Your task to perform on an android device: turn off picture-in-picture Image 0: 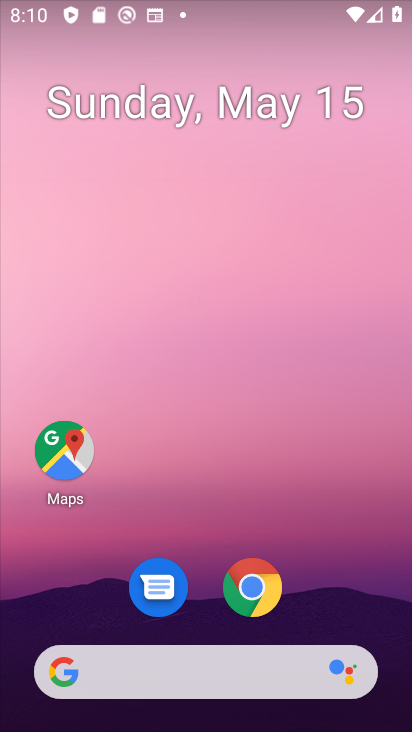
Step 0: drag from (214, 616) to (252, 214)
Your task to perform on an android device: turn off picture-in-picture Image 1: 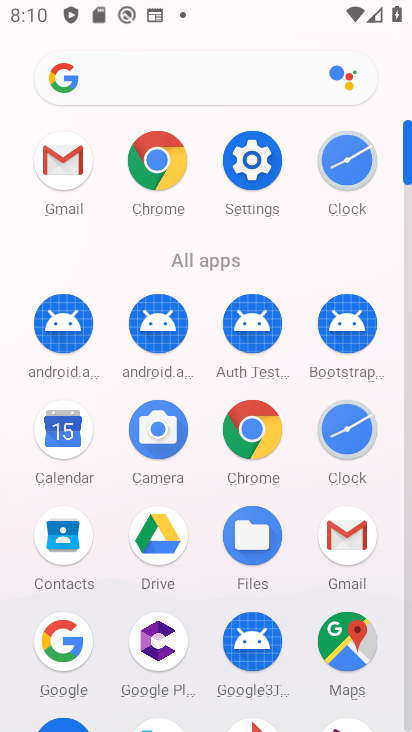
Step 1: click (252, 158)
Your task to perform on an android device: turn off picture-in-picture Image 2: 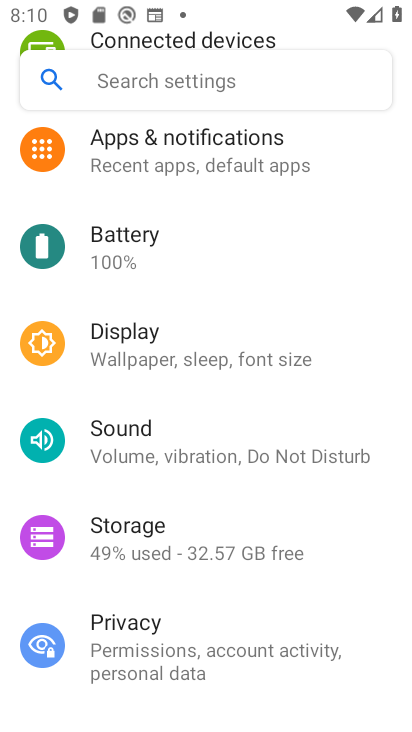
Step 2: click (260, 158)
Your task to perform on an android device: turn off picture-in-picture Image 3: 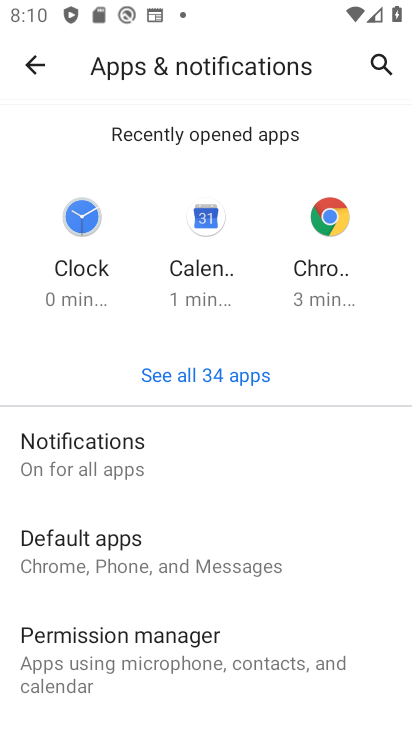
Step 3: drag from (193, 525) to (198, 278)
Your task to perform on an android device: turn off picture-in-picture Image 4: 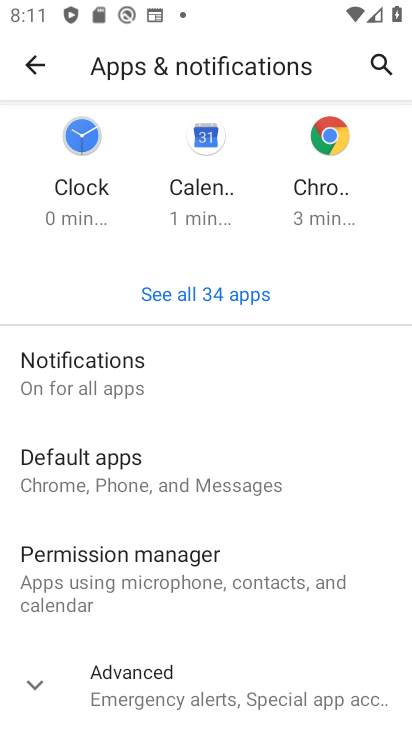
Step 4: click (36, 677)
Your task to perform on an android device: turn off picture-in-picture Image 5: 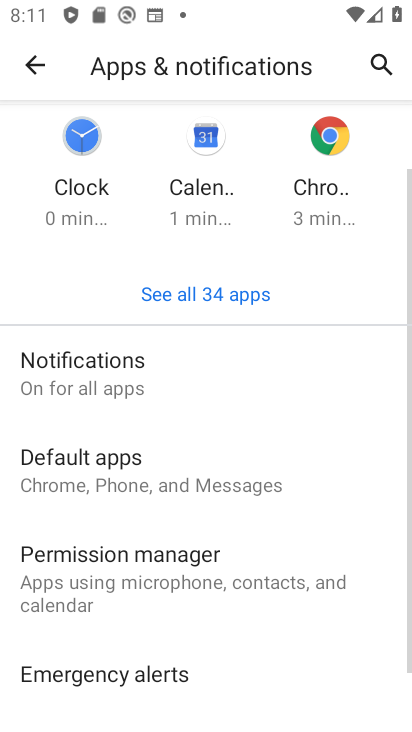
Step 5: drag from (34, 623) to (116, 221)
Your task to perform on an android device: turn off picture-in-picture Image 6: 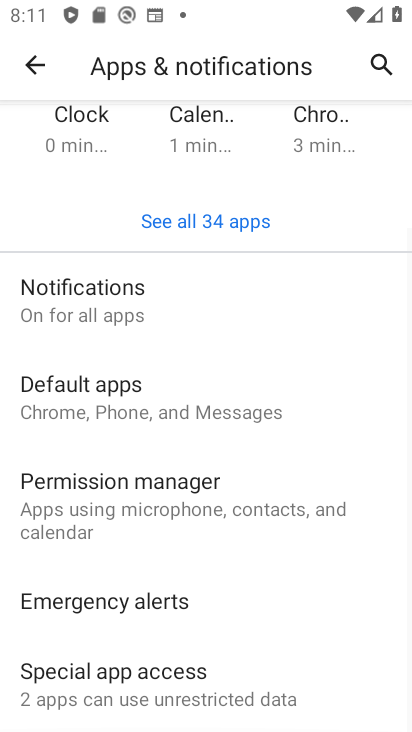
Step 6: drag from (119, 662) to (122, 521)
Your task to perform on an android device: turn off picture-in-picture Image 7: 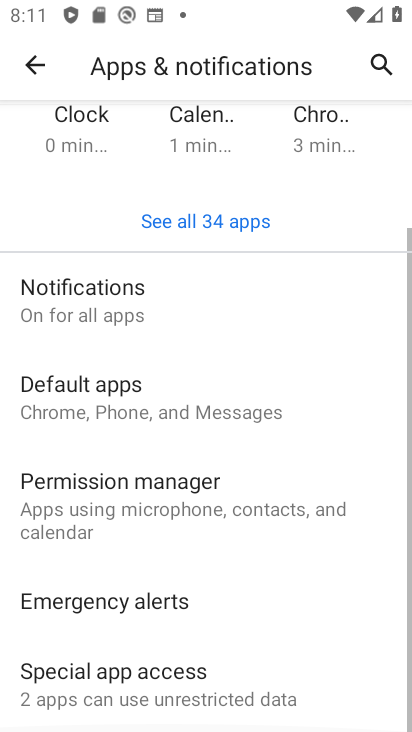
Step 7: click (79, 677)
Your task to perform on an android device: turn off picture-in-picture Image 8: 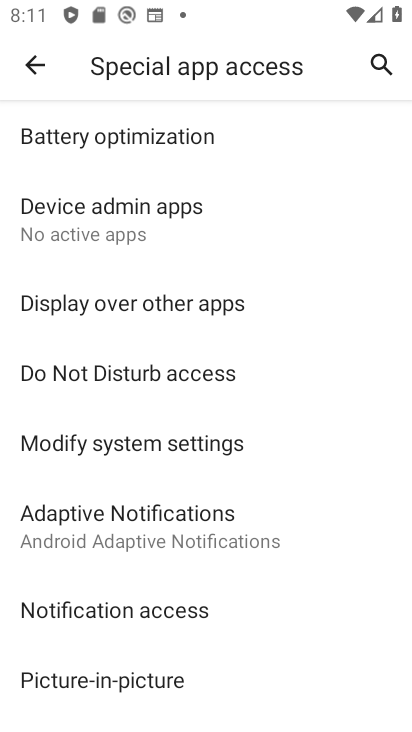
Step 8: click (85, 678)
Your task to perform on an android device: turn off picture-in-picture Image 9: 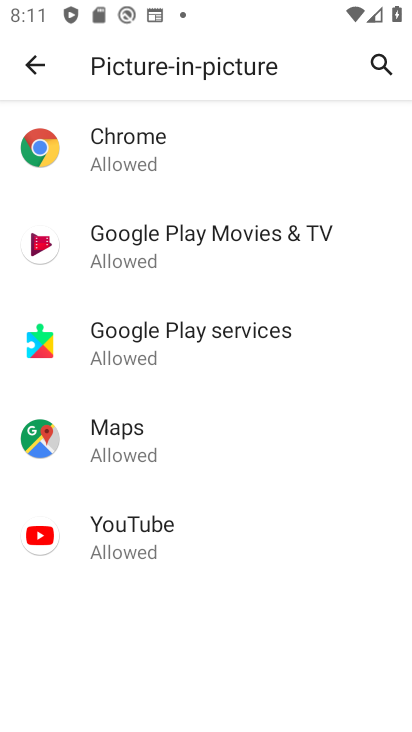
Step 9: click (139, 229)
Your task to perform on an android device: turn off picture-in-picture Image 10: 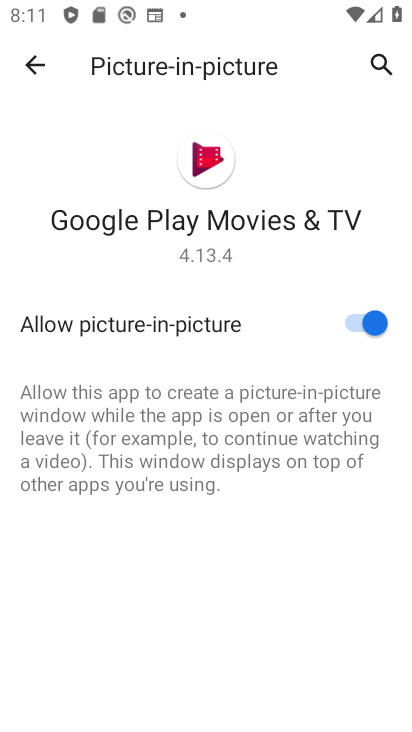
Step 10: click (359, 322)
Your task to perform on an android device: turn off picture-in-picture Image 11: 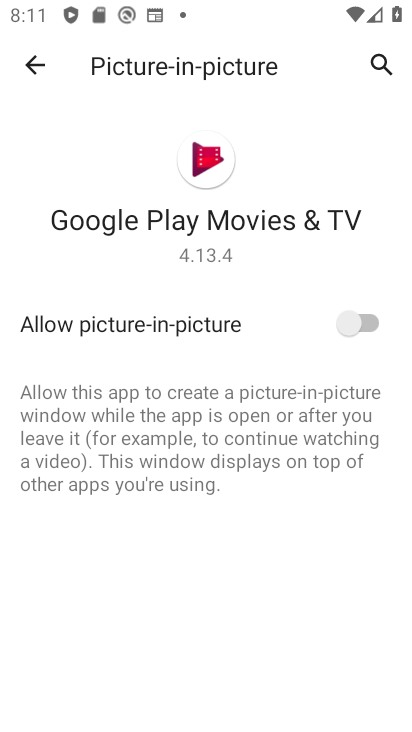
Step 11: task complete